Your task to perform on an android device: delete location history Image 0: 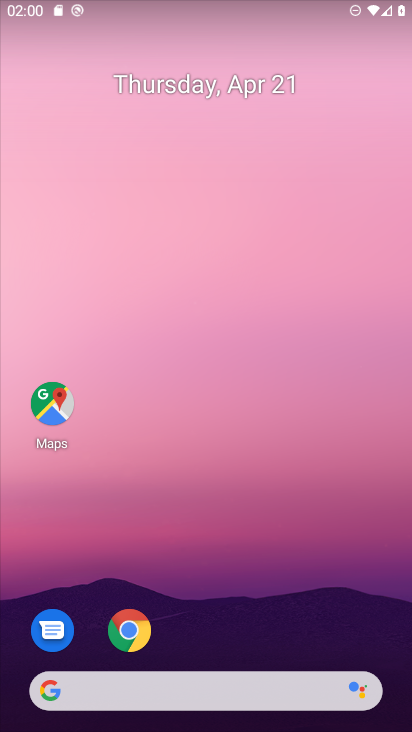
Step 0: drag from (261, 639) to (263, 0)
Your task to perform on an android device: delete location history Image 1: 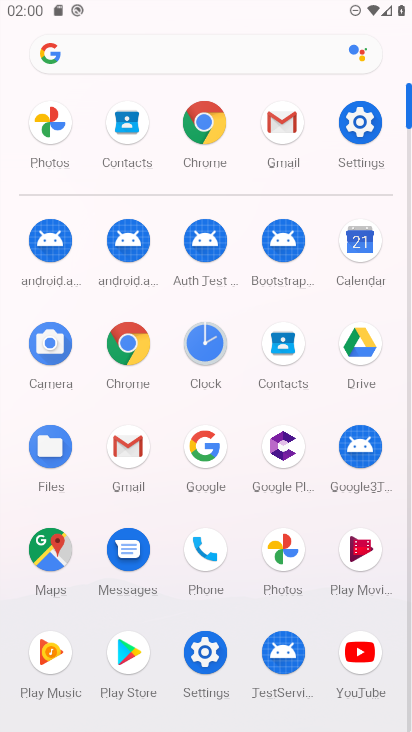
Step 1: click (360, 170)
Your task to perform on an android device: delete location history Image 2: 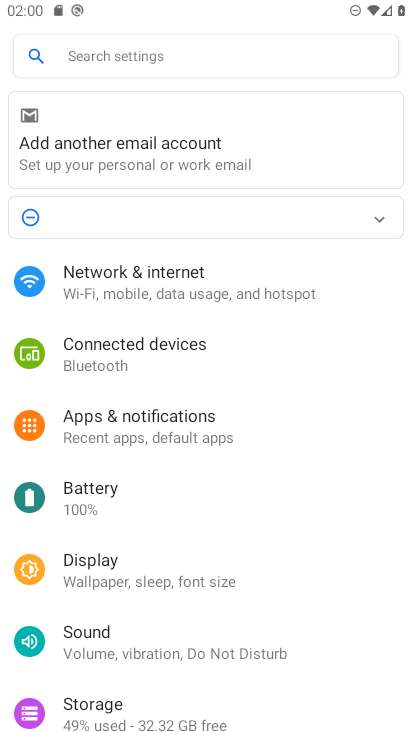
Step 2: click (183, 523)
Your task to perform on an android device: delete location history Image 3: 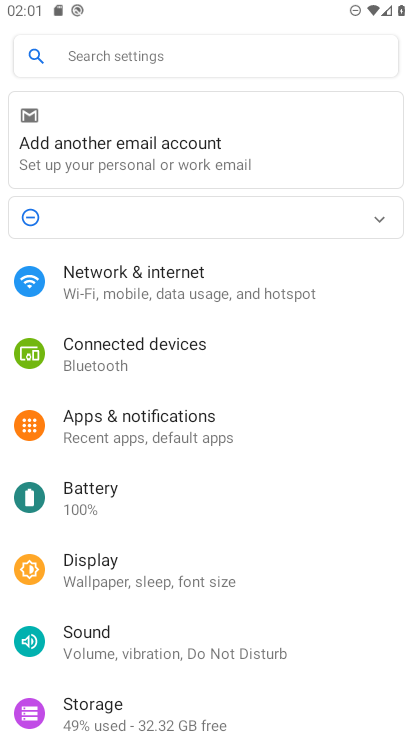
Step 3: click (190, 336)
Your task to perform on an android device: delete location history Image 4: 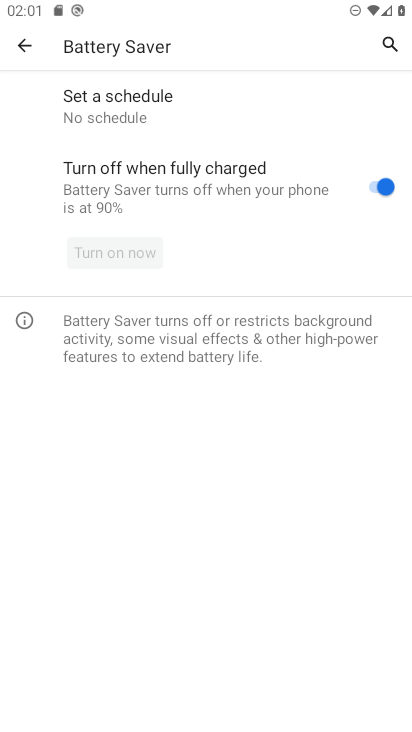
Step 4: click (33, 42)
Your task to perform on an android device: delete location history Image 5: 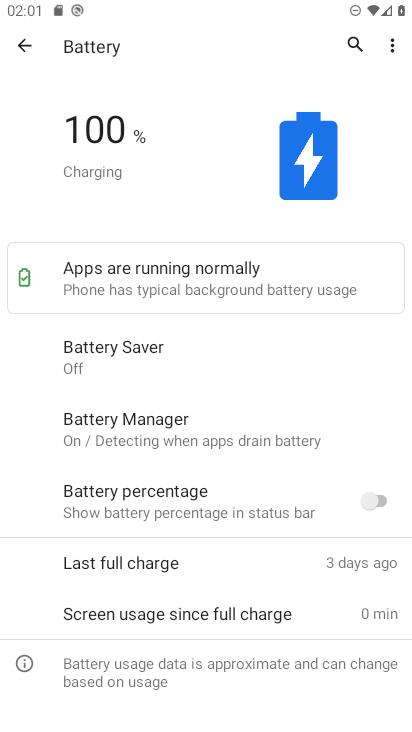
Step 5: press home button
Your task to perform on an android device: delete location history Image 6: 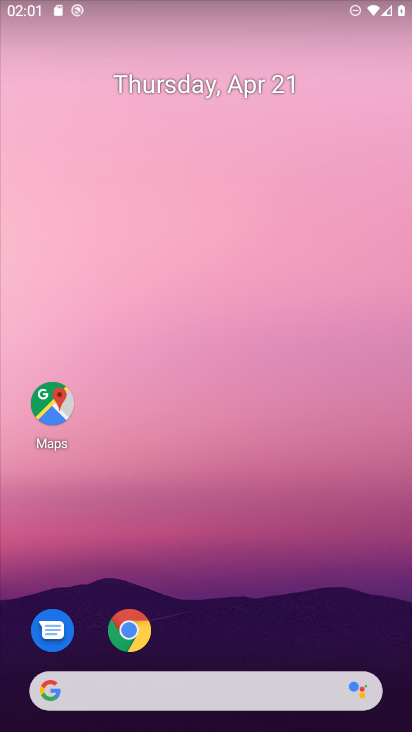
Step 6: drag from (221, 612) to (217, 7)
Your task to perform on an android device: delete location history Image 7: 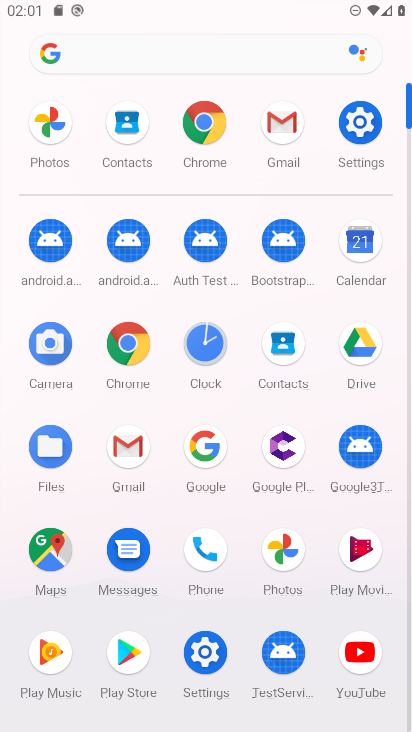
Step 7: click (360, 157)
Your task to perform on an android device: delete location history Image 8: 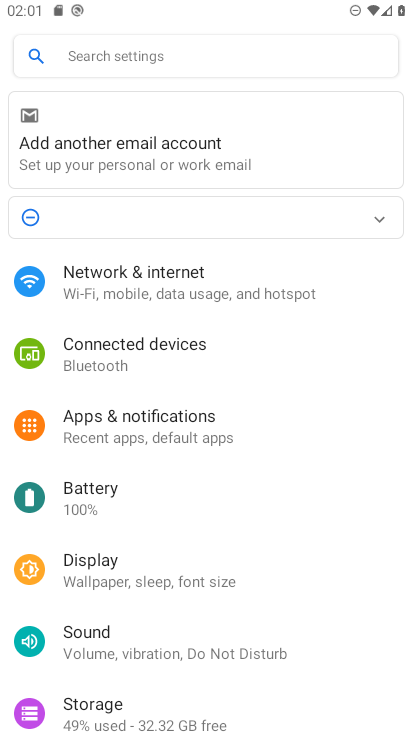
Step 8: click (201, 592)
Your task to perform on an android device: delete location history Image 9: 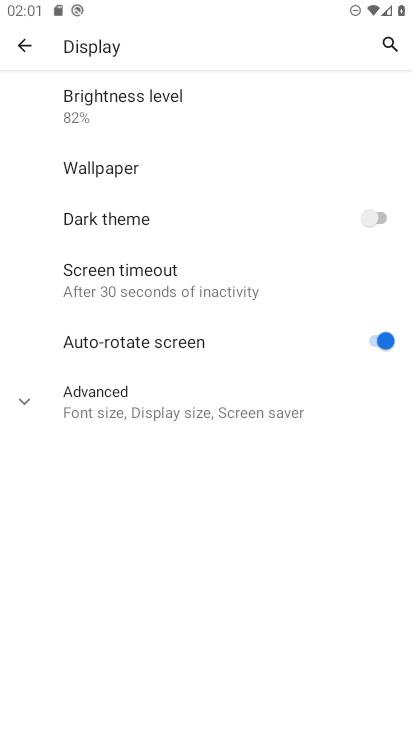
Step 9: click (201, 592)
Your task to perform on an android device: delete location history Image 10: 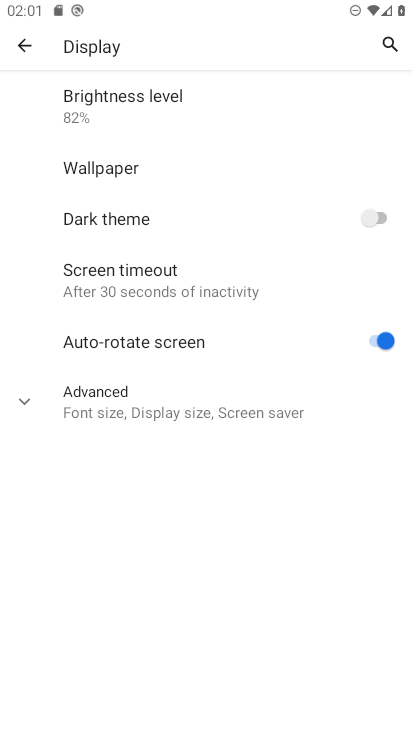
Step 10: click (22, 47)
Your task to perform on an android device: delete location history Image 11: 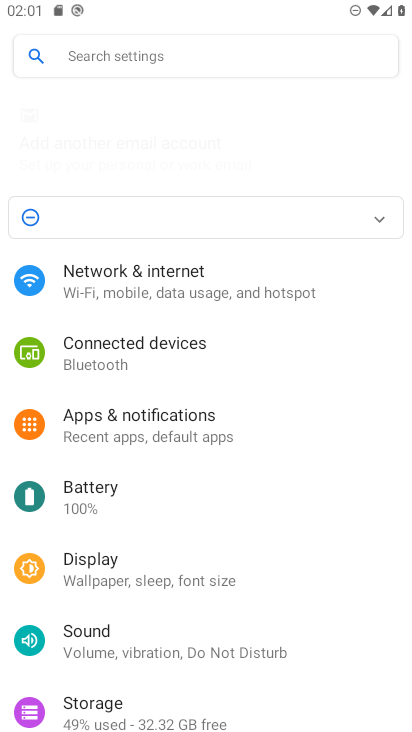
Step 11: drag from (116, 553) to (77, 142)
Your task to perform on an android device: delete location history Image 12: 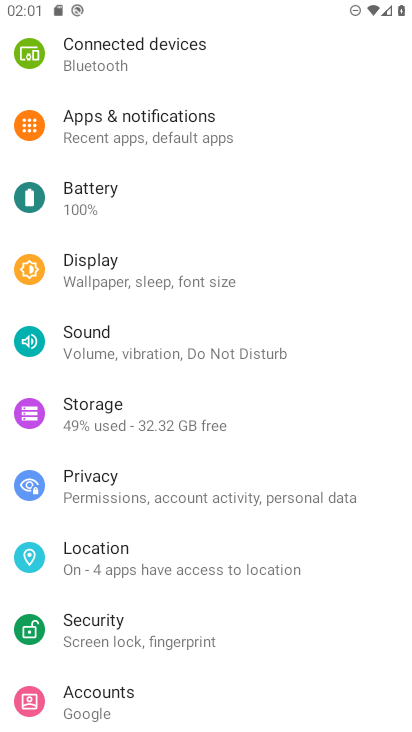
Step 12: drag from (150, 632) to (145, 365)
Your task to perform on an android device: delete location history Image 13: 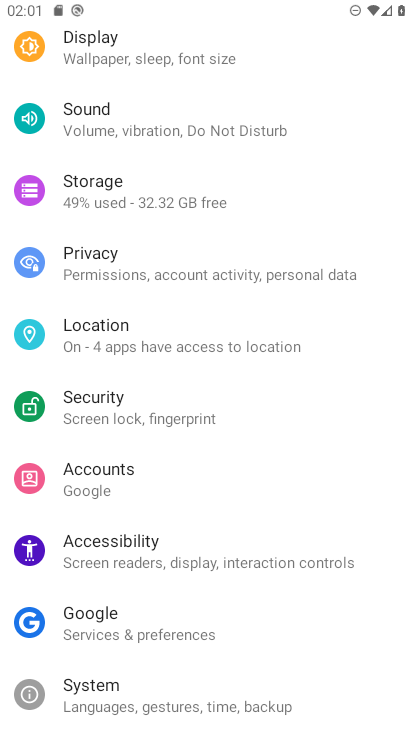
Step 13: click (195, 343)
Your task to perform on an android device: delete location history Image 14: 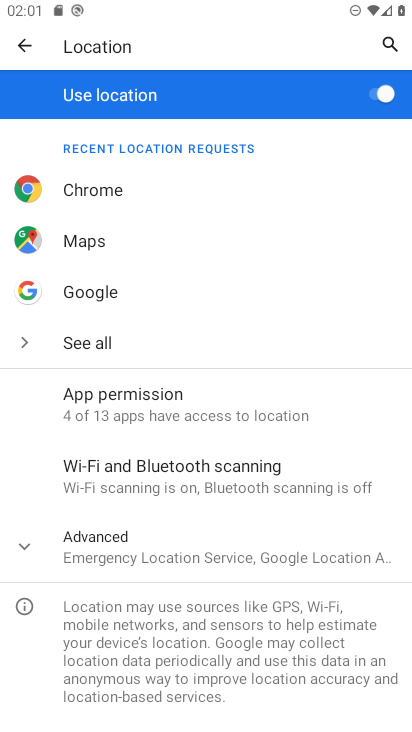
Step 14: drag from (262, 658) to (264, 499)
Your task to perform on an android device: delete location history Image 15: 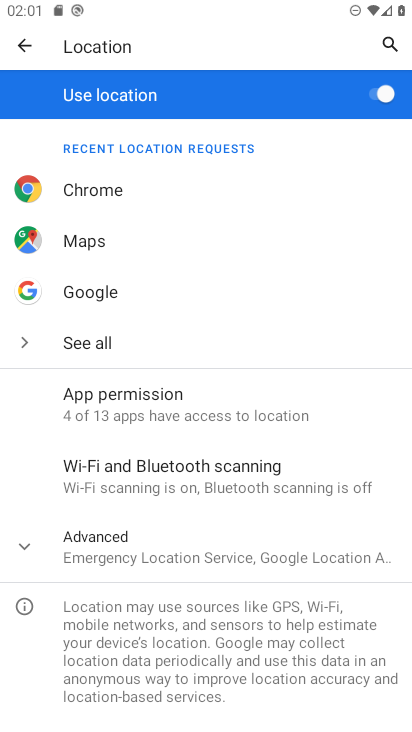
Step 15: click (242, 541)
Your task to perform on an android device: delete location history Image 16: 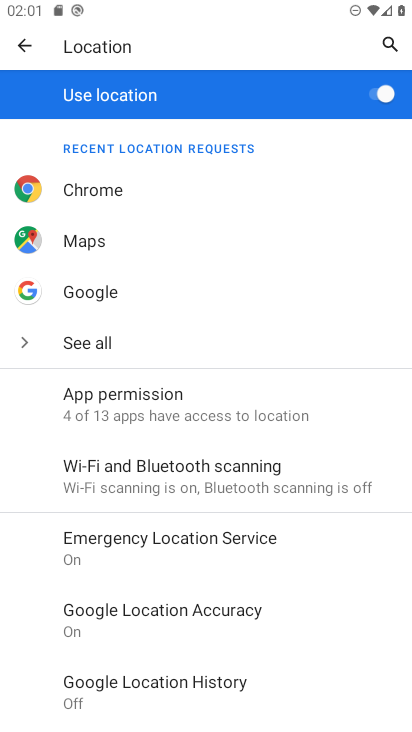
Step 16: drag from (265, 580) to (266, 253)
Your task to perform on an android device: delete location history Image 17: 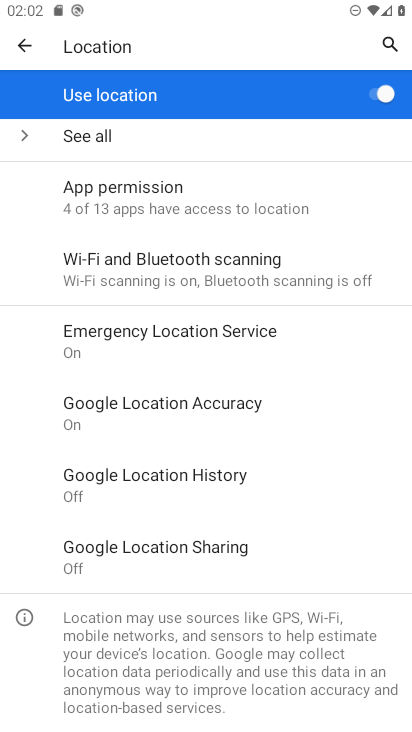
Step 17: click (216, 474)
Your task to perform on an android device: delete location history Image 18: 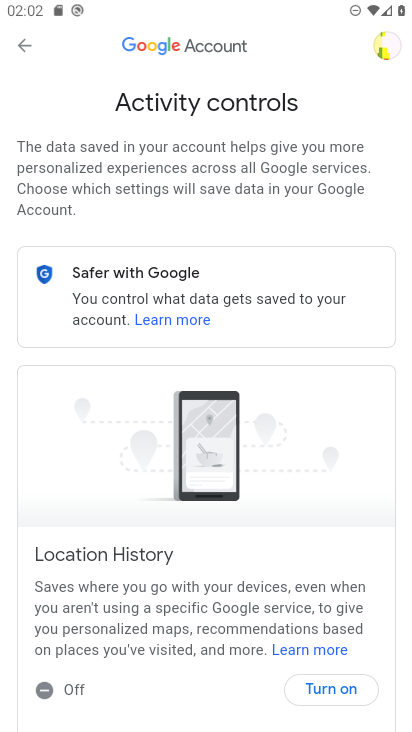
Step 18: drag from (224, 666) to (208, 107)
Your task to perform on an android device: delete location history Image 19: 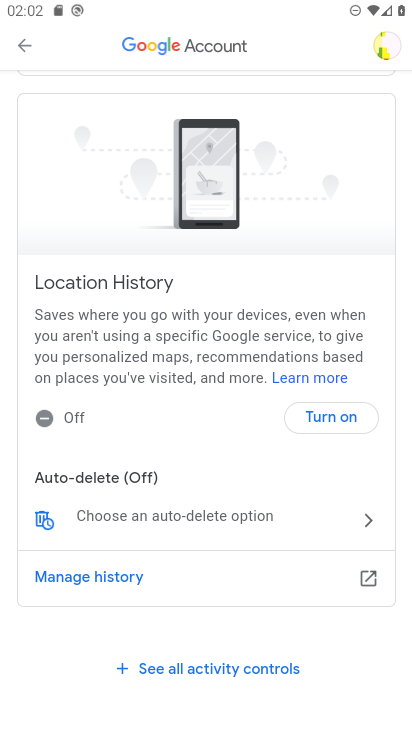
Step 19: click (107, 574)
Your task to perform on an android device: delete location history Image 20: 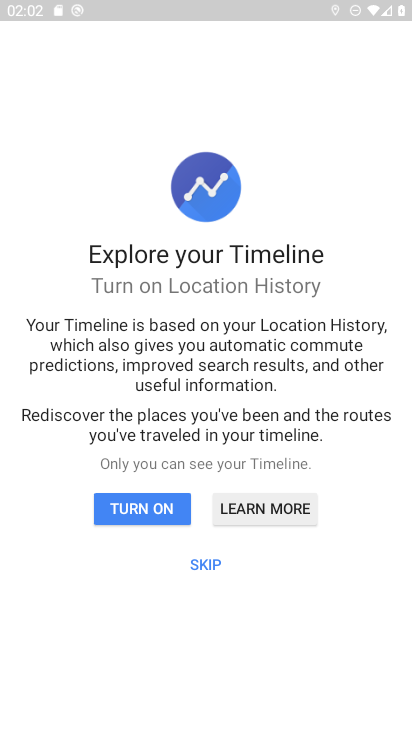
Step 20: click (209, 560)
Your task to perform on an android device: delete location history Image 21: 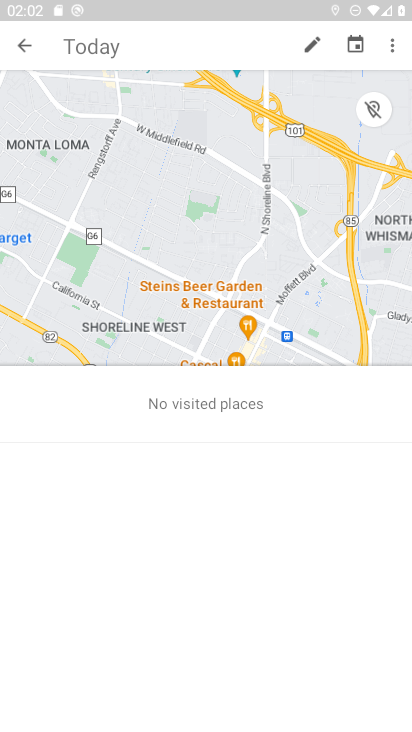
Step 21: task complete